Your task to perform on an android device: Open Maps and search for coffee Image 0: 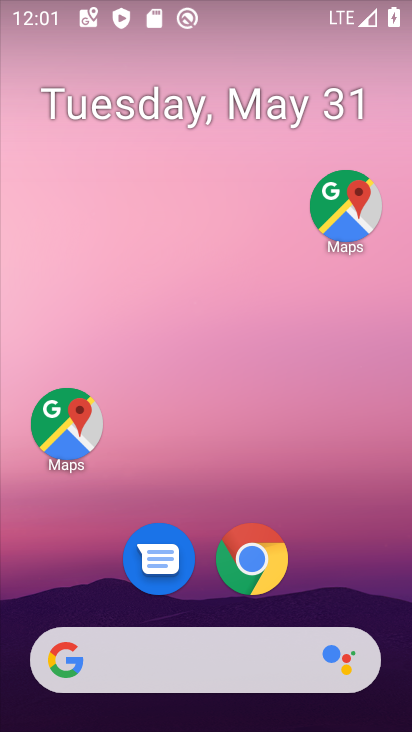
Step 0: drag from (344, 462) to (293, 93)
Your task to perform on an android device: Open Maps and search for coffee Image 1: 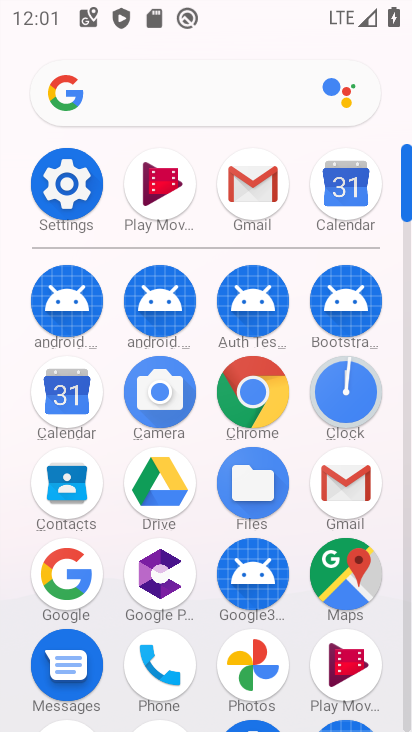
Step 1: click (79, 189)
Your task to perform on an android device: Open Maps and search for coffee Image 2: 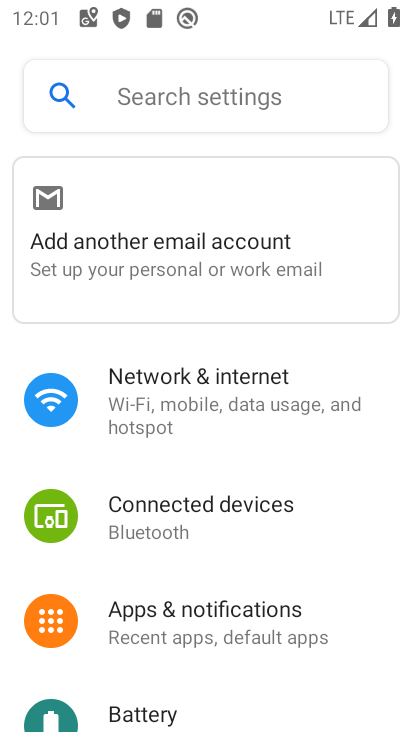
Step 2: press home button
Your task to perform on an android device: Open Maps and search for coffee Image 3: 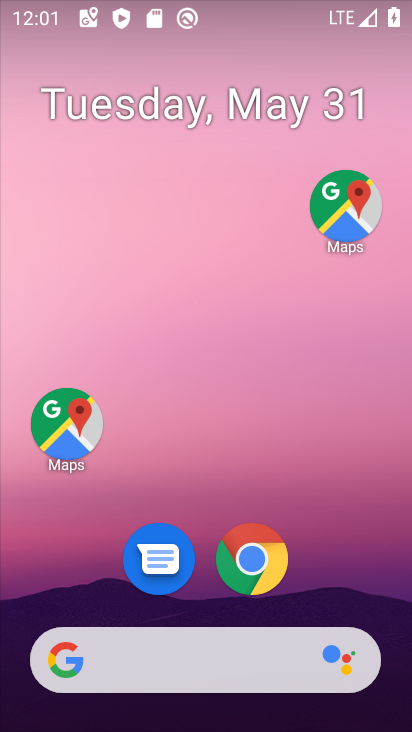
Step 3: click (63, 447)
Your task to perform on an android device: Open Maps and search for coffee Image 4: 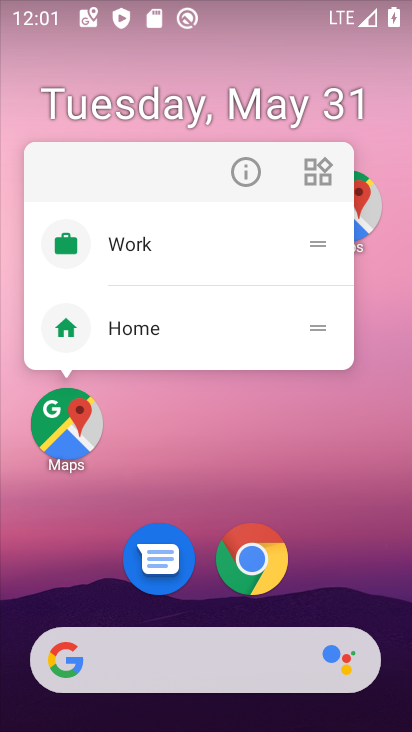
Step 4: click (57, 439)
Your task to perform on an android device: Open Maps and search for coffee Image 5: 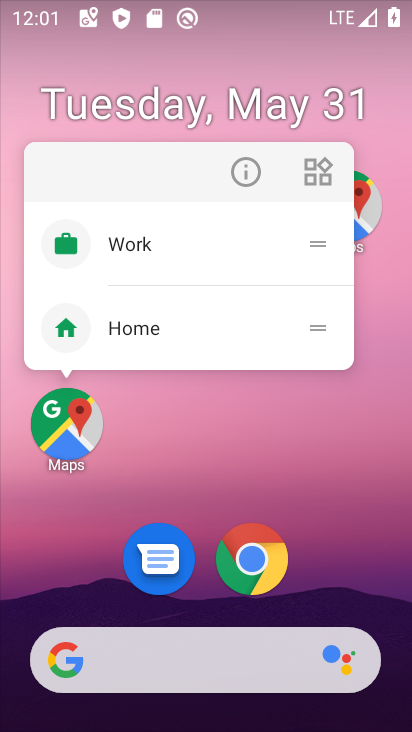
Step 5: click (62, 430)
Your task to perform on an android device: Open Maps and search for coffee Image 6: 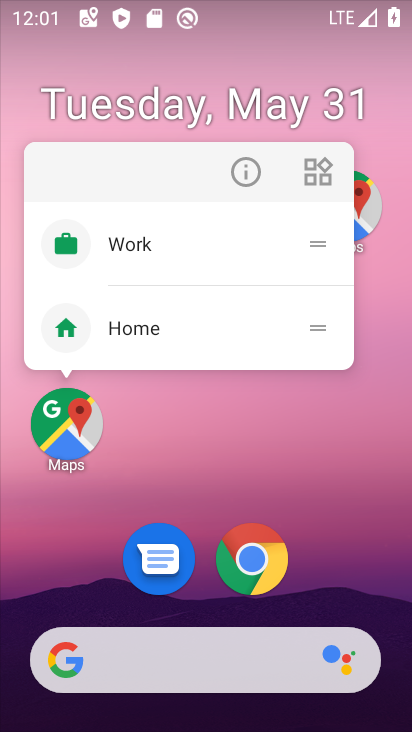
Step 6: click (232, 462)
Your task to perform on an android device: Open Maps and search for coffee Image 7: 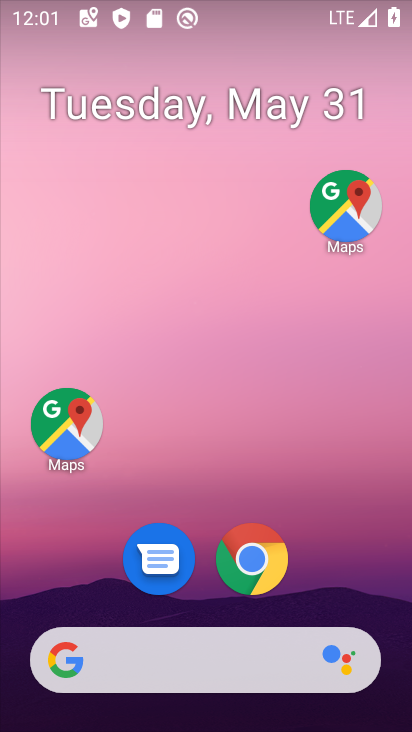
Step 7: drag from (343, 586) to (310, 92)
Your task to perform on an android device: Open Maps and search for coffee Image 8: 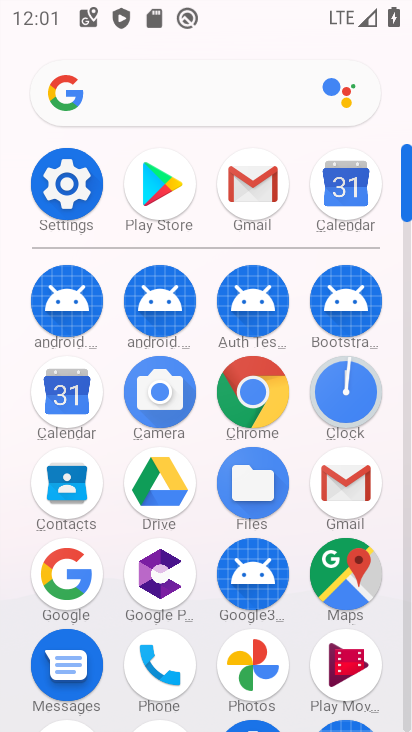
Step 8: click (349, 576)
Your task to perform on an android device: Open Maps and search for coffee Image 9: 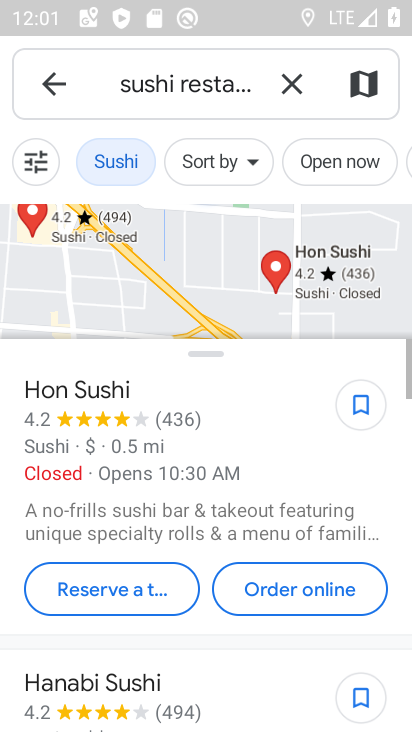
Step 9: click (238, 80)
Your task to perform on an android device: Open Maps and search for coffee Image 10: 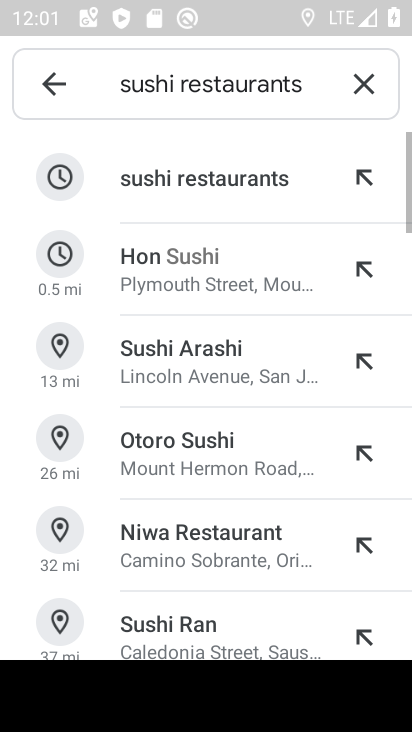
Step 10: click (354, 83)
Your task to perform on an android device: Open Maps and search for coffee Image 11: 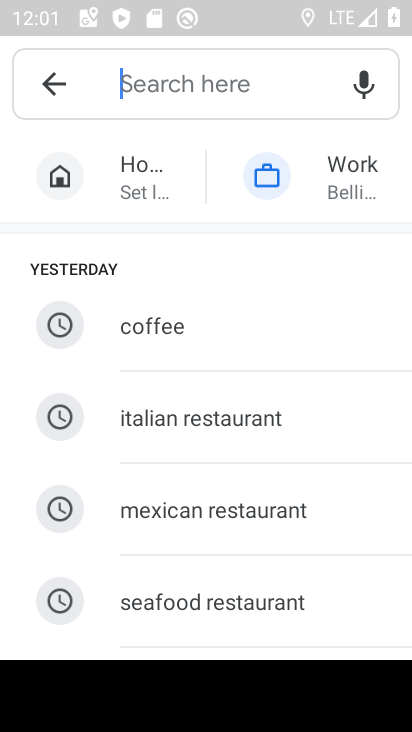
Step 11: click (142, 323)
Your task to perform on an android device: Open Maps and search for coffee Image 12: 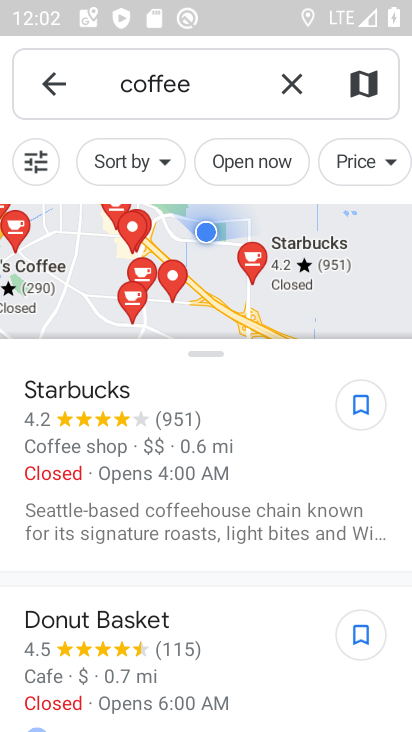
Step 12: task complete